Your task to perform on an android device: turn on translation in the chrome app Image 0: 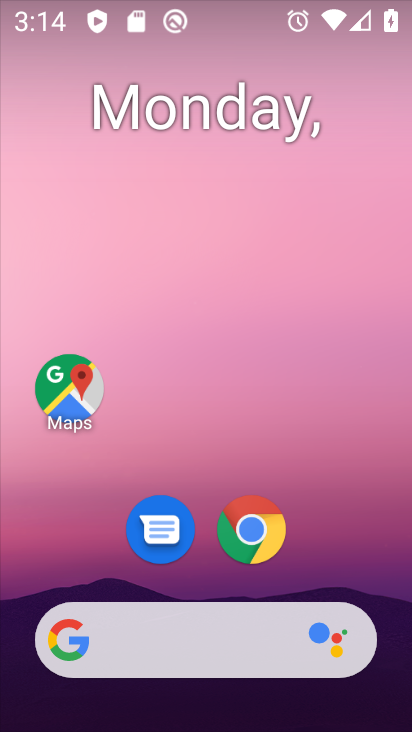
Step 0: click (256, 544)
Your task to perform on an android device: turn on translation in the chrome app Image 1: 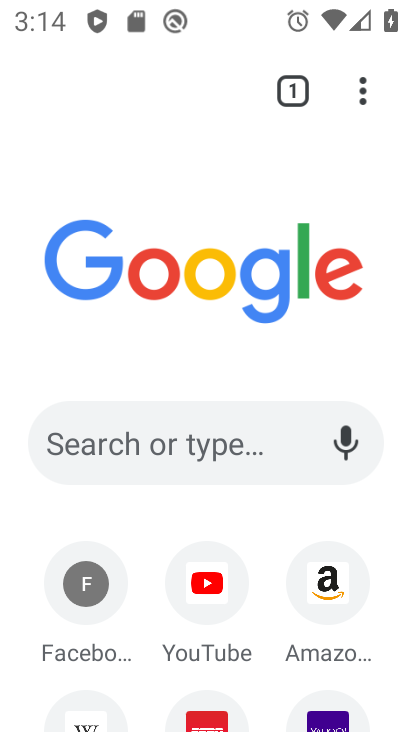
Step 1: click (372, 95)
Your task to perform on an android device: turn on translation in the chrome app Image 2: 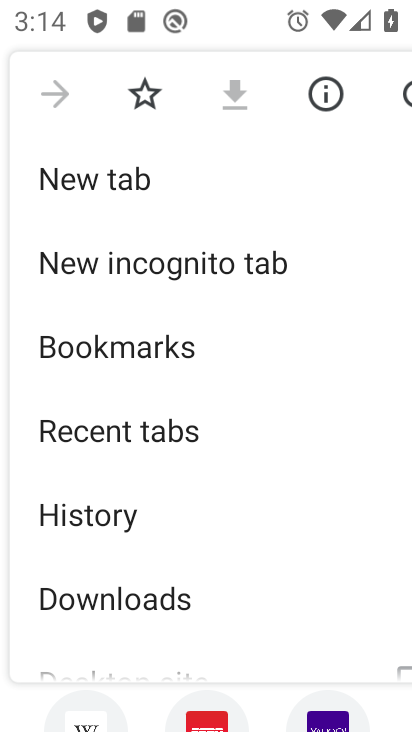
Step 2: drag from (128, 480) to (178, 163)
Your task to perform on an android device: turn on translation in the chrome app Image 3: 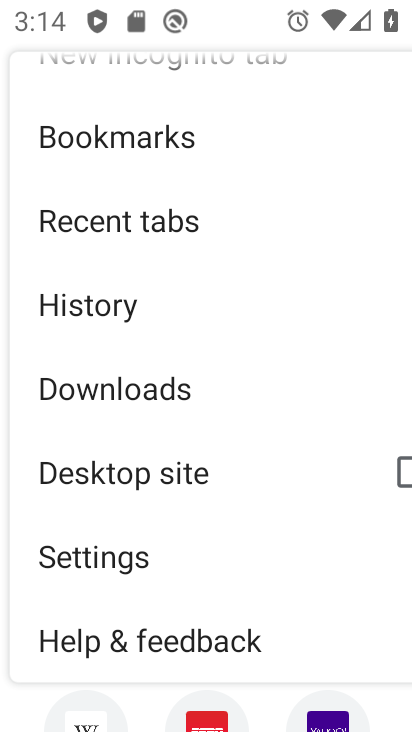
Step 3: click (133, 573)
Your task to perform on an android device: turn on translation in the chrome app Image 4: 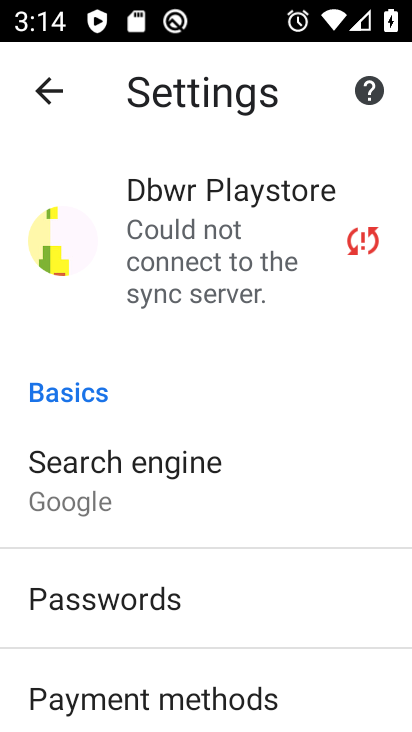
Step 4: drag from (126, 564) to (188, 221)
Your task to perform on an android device: turn on translation in the chrome app Image 5: 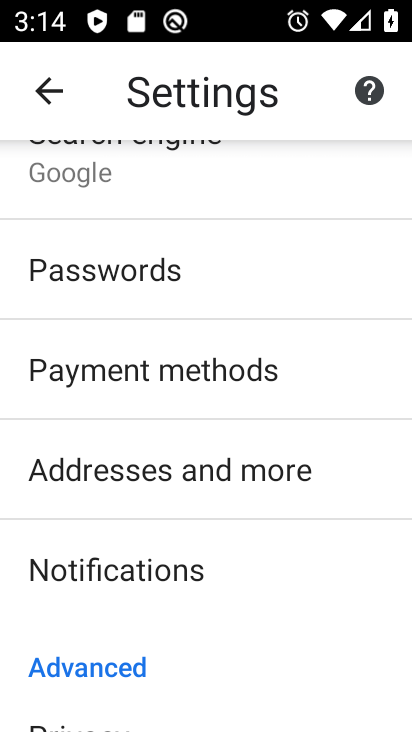
Step 5: drag from (125, 593) to (193, 168)
Your task to perform on an android device: turn on translation in the chrome app Image 6: 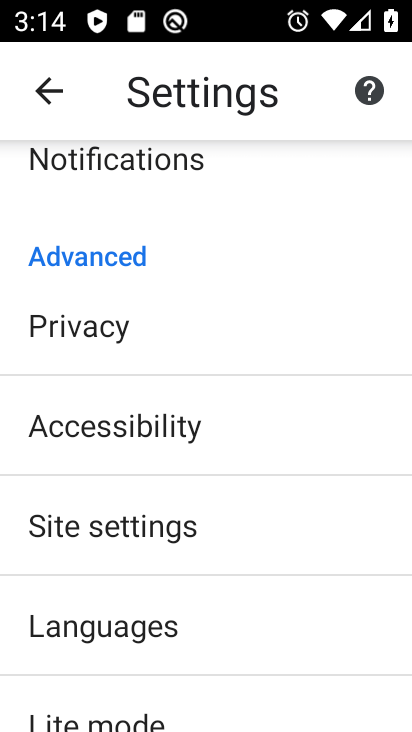
Step 6: click (107, 631)
Your task to perform on an android device: turn on translation in the chrome app Image 7: 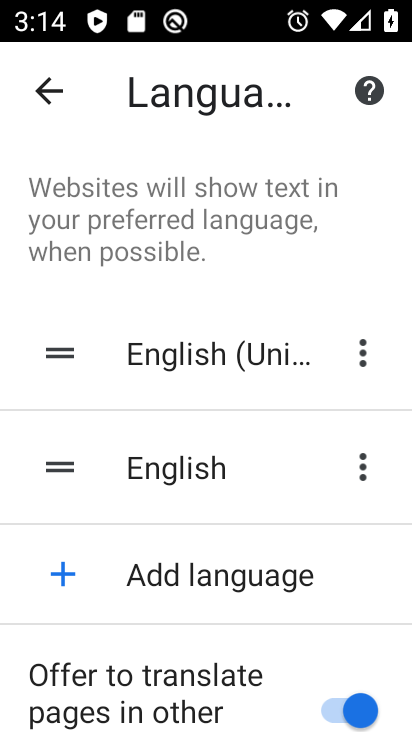
Step 7: task complete